Your task to perform on an android device: Go to sound settings Image 0: 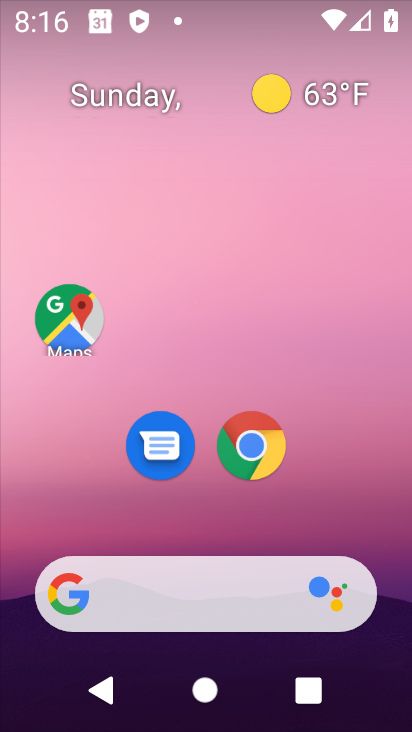
Step 0: drag from (210, 515) to (248, 5)
Your task to perform on an android device: Go to sound settings Image 1: 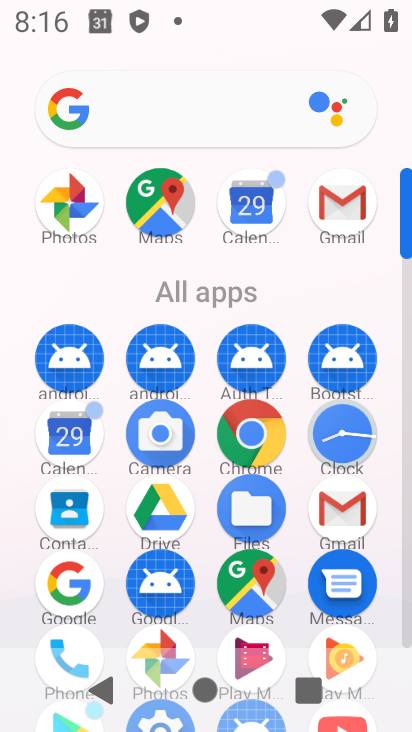
Step 1: drag from (201, 590) to (323, 70)
Your task to perform on an android device: Go to sound settings Image 2: 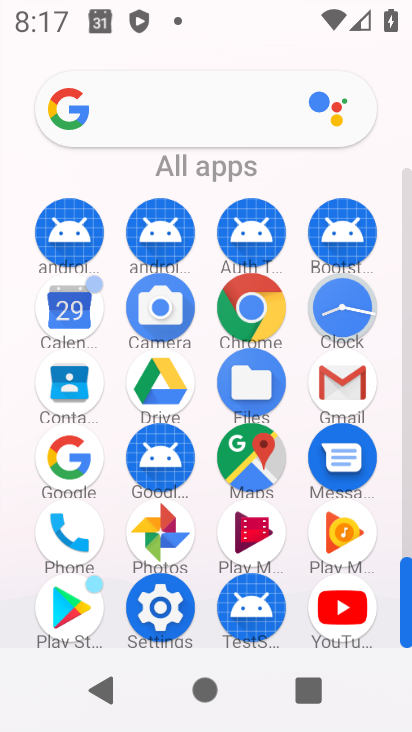
Step 2: click (145, 604)
Your task to perform on an android device: Go to sound settings Image 3: 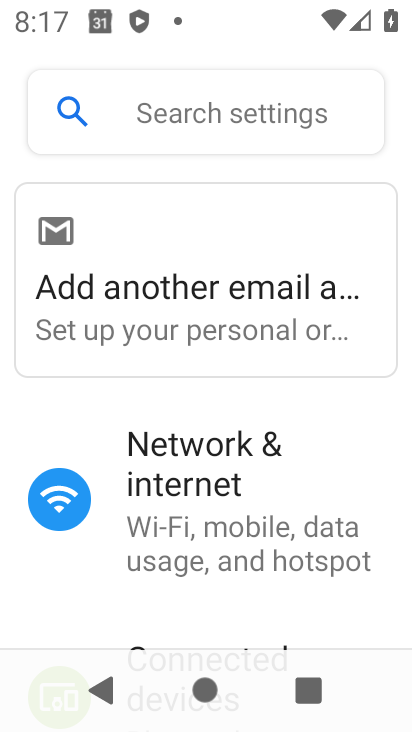
Step 3: drag from (183, 577) to (244, 108)
Your task to perform on an android device: Go to sound settings Image 4: 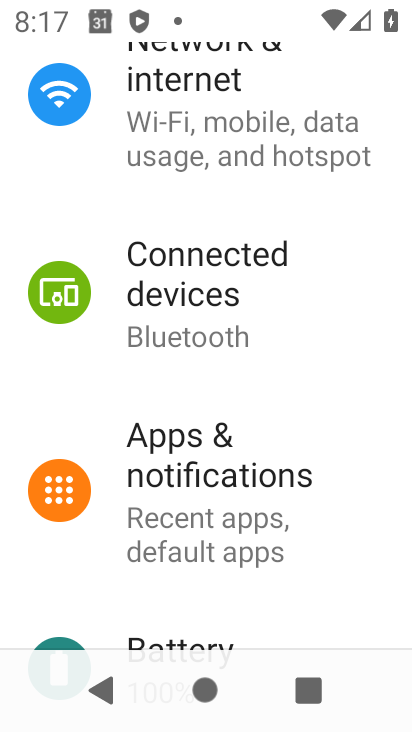
Step 4: drag from (167, 569) to (165, 35)
Your task to perform on an android device: Go to sound settings Image 5: 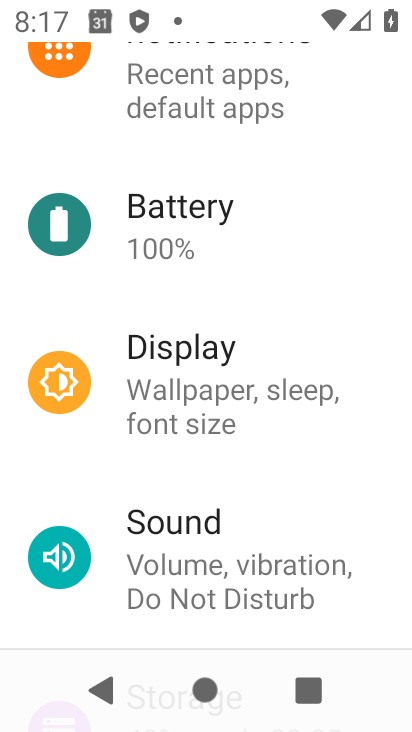
Step 5: click (175, 574)
Your task to perform on an android device: Go to sound settings Image 6: 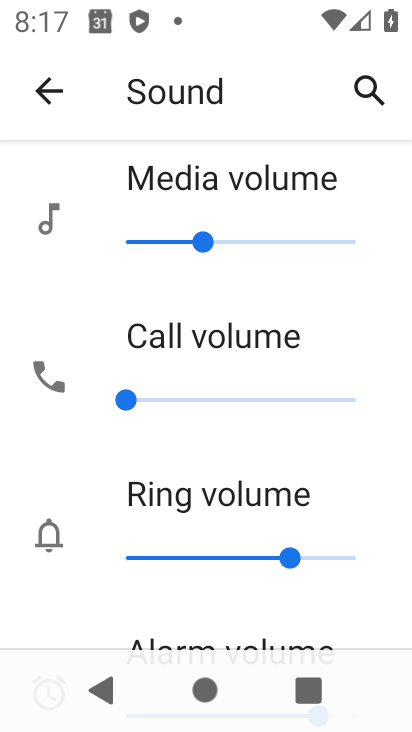
Step 6: task complete